Your task to perform on an android device: What's on my calendar today? Image 0: 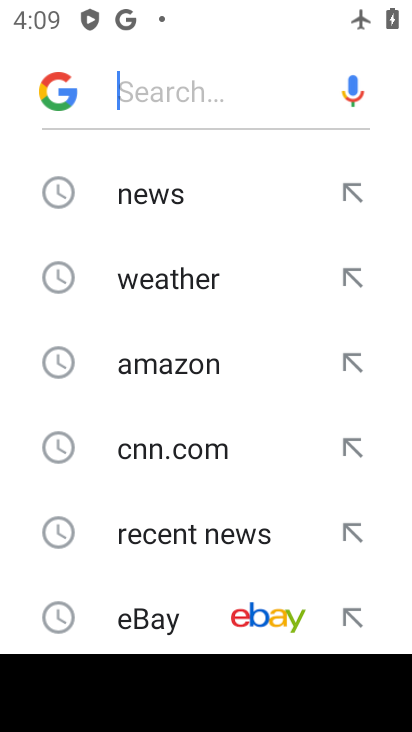
Step 0: press home button
Your task to perform on an android device: What's on my calendar today? Image 1: 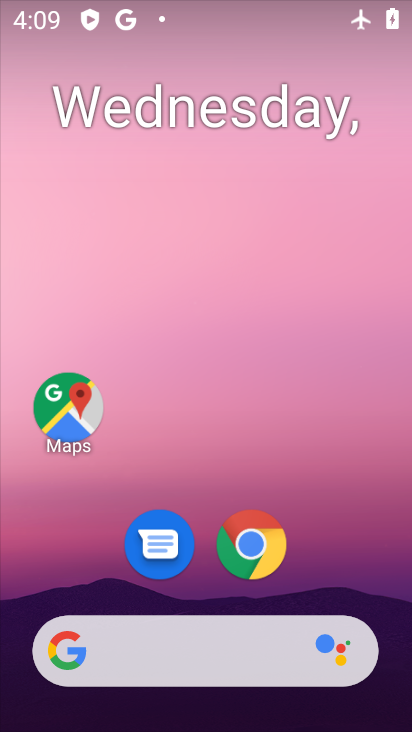
Step 1: drag from (383, 573) to (388, 228)
Your task to perform on an android device: What's on my calendar today? Image 2: 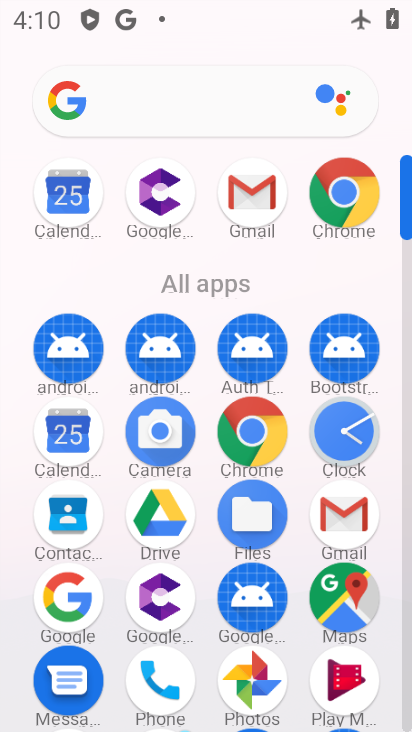
Step 2: click (64, 451)
Your task to perform on an android device: What's on my calendar today? Image 3: 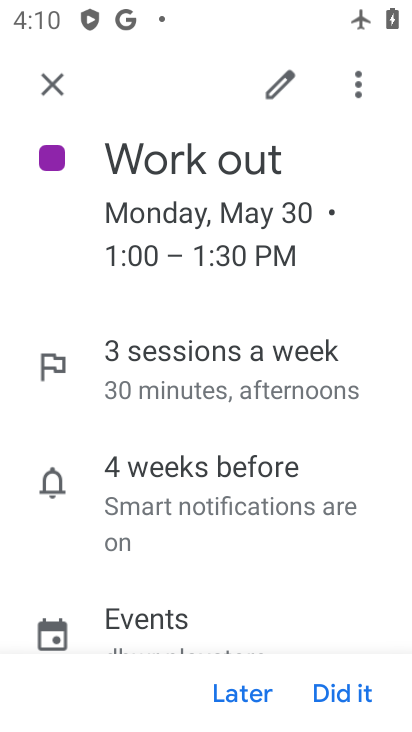
Step 3: click (57, 77)
Your task to perform on an android device: What's on my calendar today? Image 4: 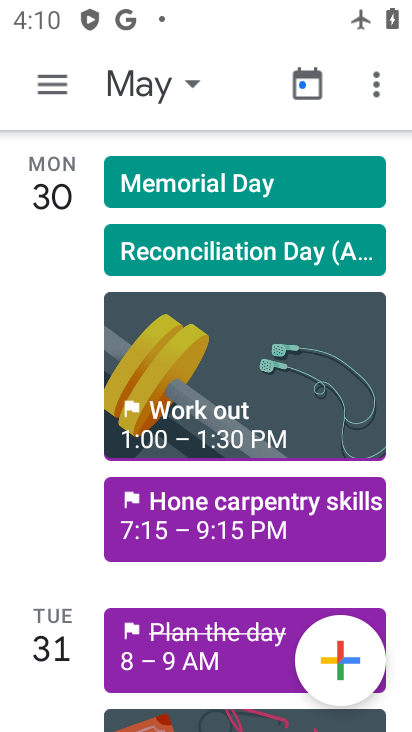
Step 4: click (190, 94)
Your task to perform on an android device: What's on my calendar today? Image 5: 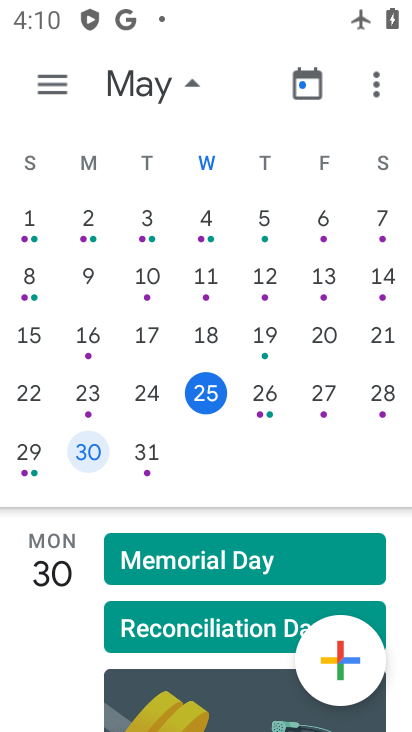
Step 5: click (212, 399)
Your task to perform on an android device: What's on my calendar today? Image 6: 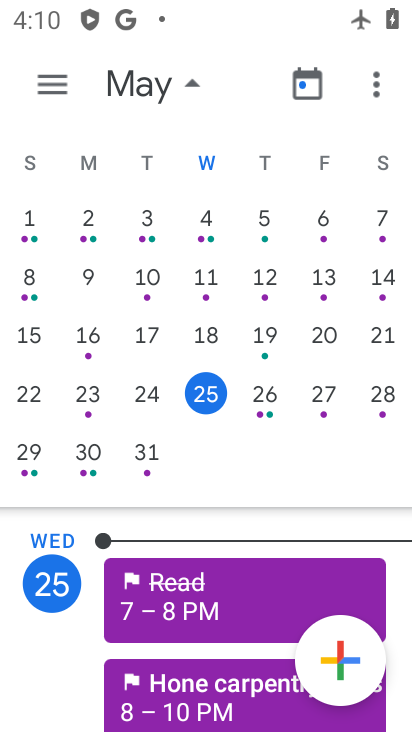
Step 6: task complete